Your task to perform on an android device: When is my next meeting? Image 0: 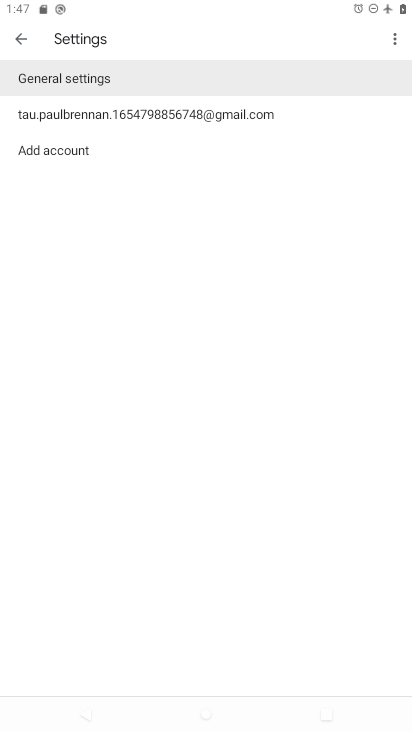
Step 0: press home button
Your task to perform on an android device: When is my next meeting? Image 1: 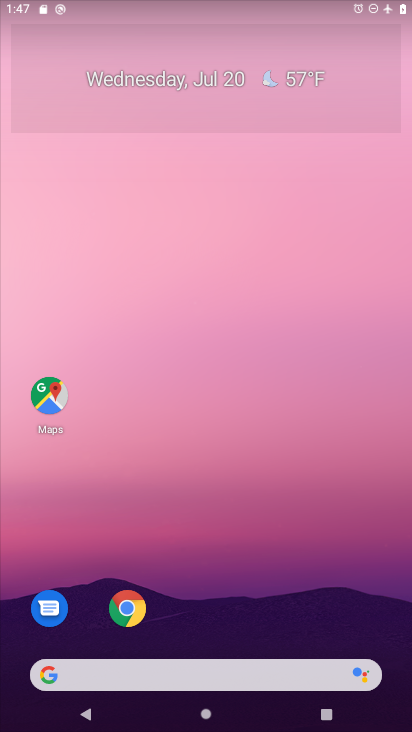
Step 1: drag from (172, 663) to (333, 247)
Your task to perform on an android device: When is my next meeting? Image 2: 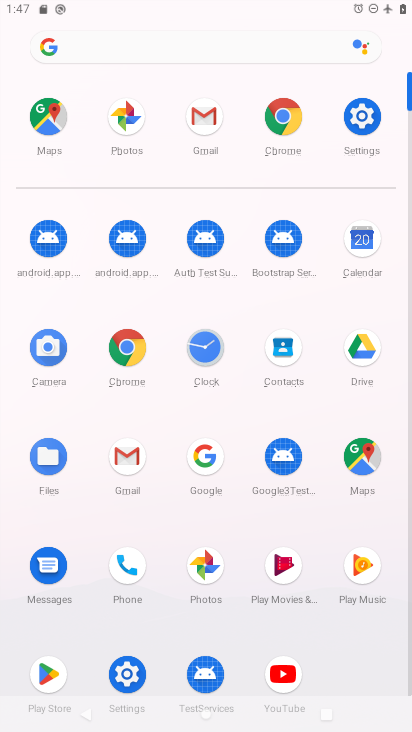
Step 2: click (373, 232)
Your task to perform on an android device: When is my next meeting? Image 3: 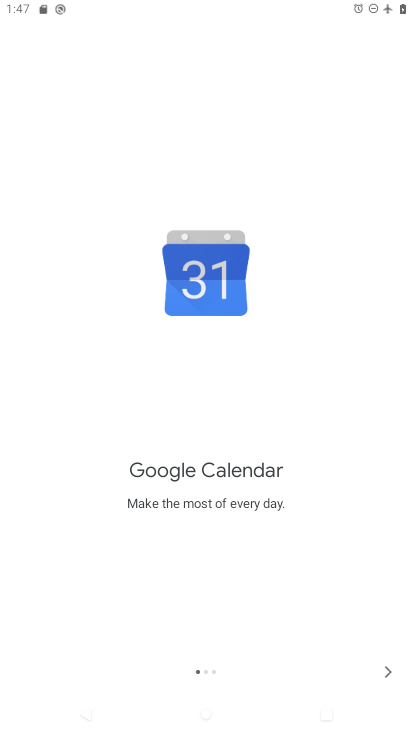
Step 3: click (372, 674)
Your task to perform on an android device: When is my next meeting? Image 4: 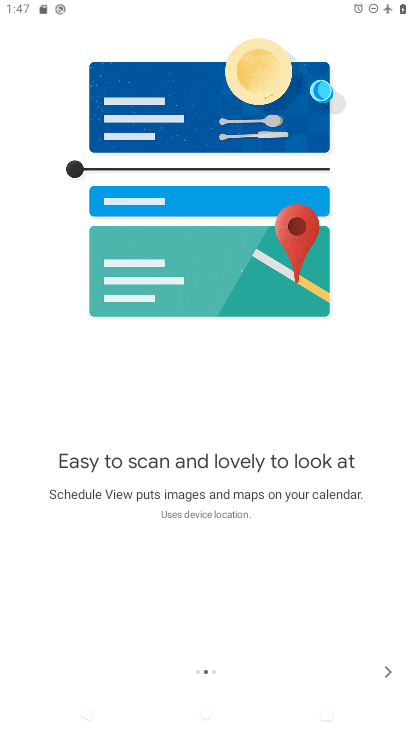
Step 4: click (386, 665)
Your task to perform on an android device: When is my next meeting? Image 5: 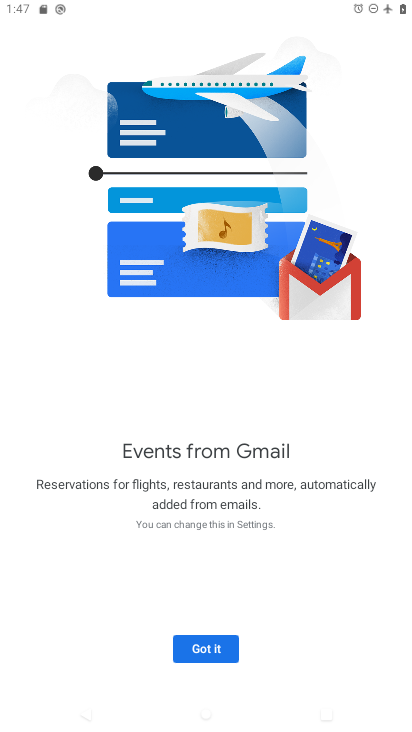
Step 5: click (222, 653)
Your task to perform on an android device: When is my next meeting? Image 6: 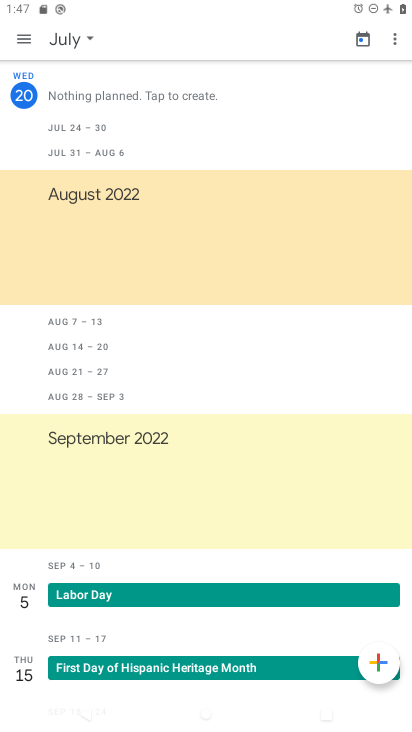
Step 6: click (31, 38)
Your task to perform on an android device: When is my next meeting? Image 7: 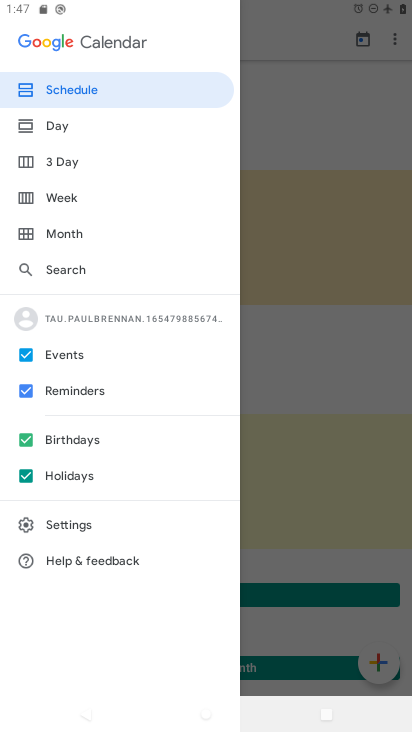
Step 7: click (106, 95)
Your task to perform on an android device: When is my next meeting? Image 8: 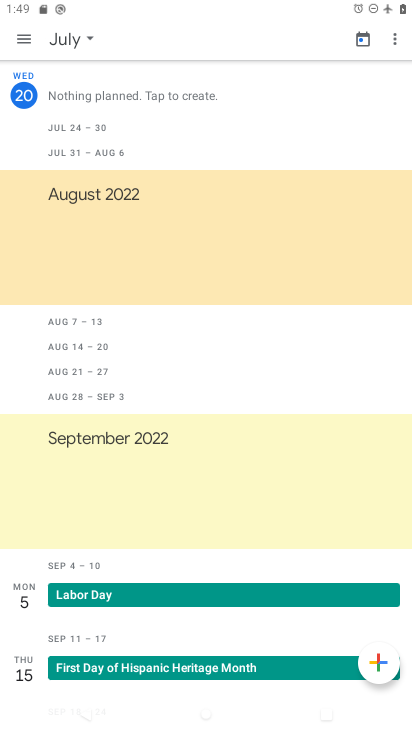
Step 8: task complete